Your task to perform on an android device: check storage Image 0: 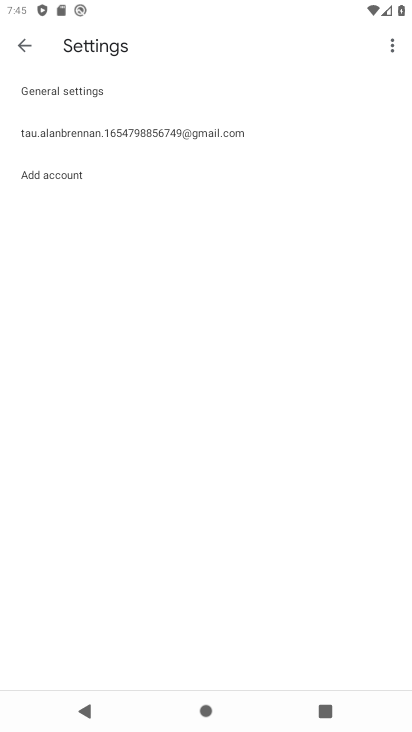
Step 0: press home button
Your task to perform on an android device: check storage Image 1: 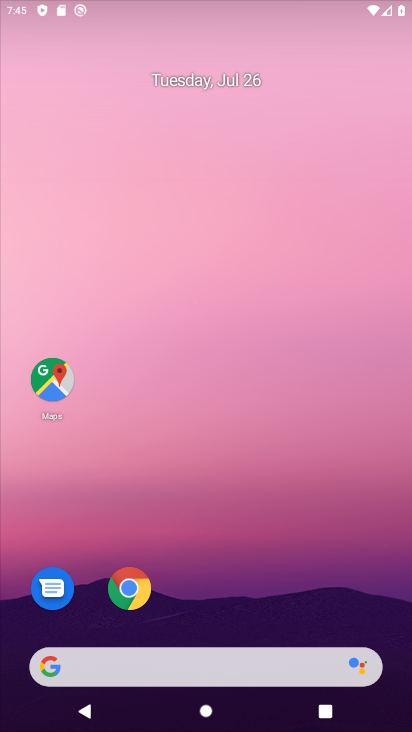
Step 1: drag from (199, 636) to (164, 272)
Your task to perform on an android device: check storage Image 2: 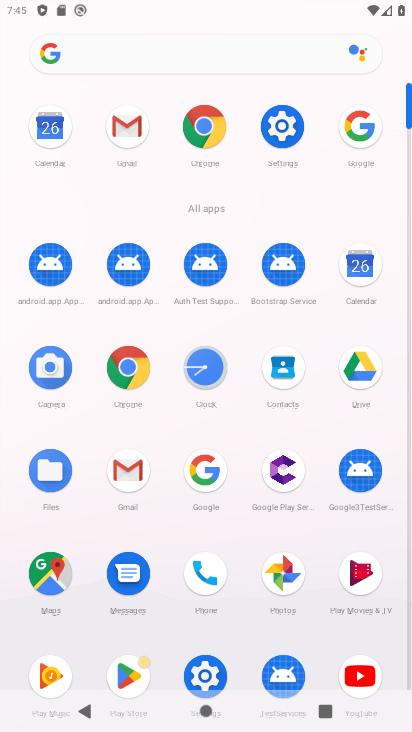
Step 2: click (268, 113)
Your task to perform on an android device: check storage Image 3: 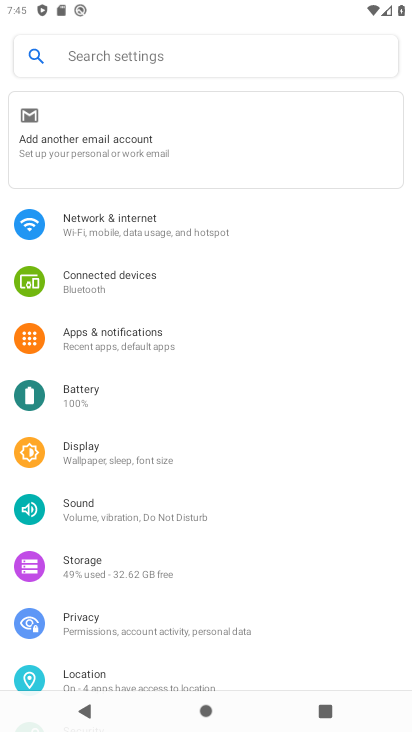
Step 3: click (126, 551)
Your task to perform on an android device: check storage Image 4: 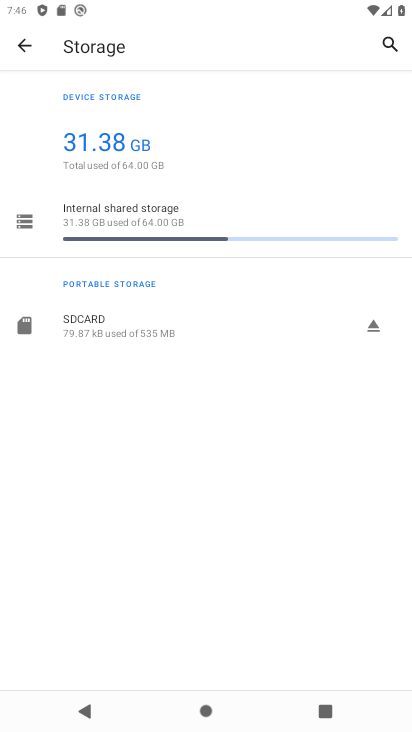
Step 4: task complete